Your task to perform on an android device: Go to accessibility settings Image 0: 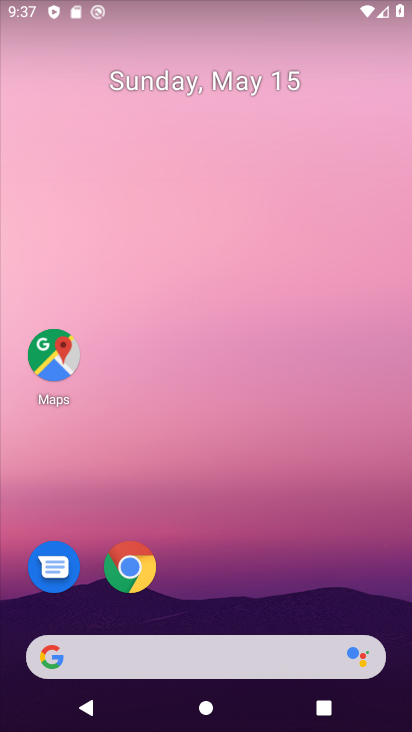
Step 0: drag from (266, 579) to (287, 100)
Your task to perform on an android device: Go to accessibility settings Image 1: 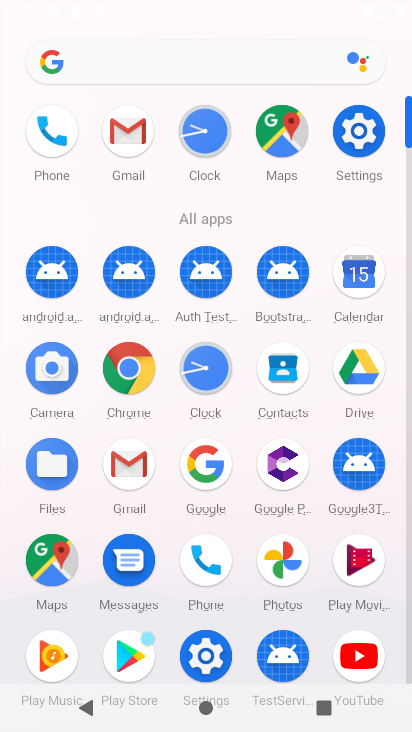
Step 1: click (355, 128)
Your task to perform on an android device: Go to accessibility settings Image 2: 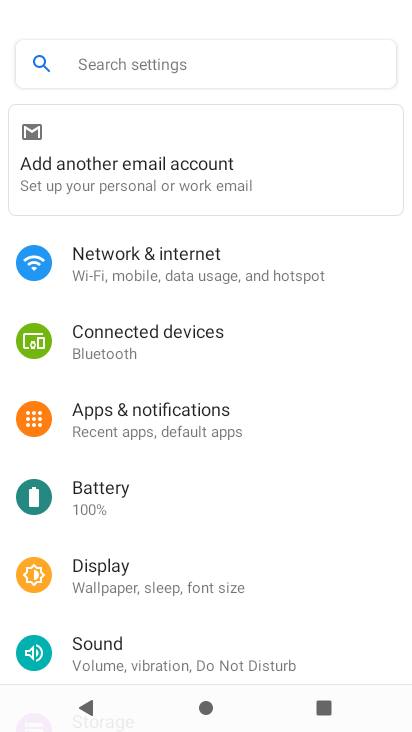
Step 2: drag from (209, 582) to (201, 143)
Your task to perform on an android device: Go to accessibility settings Image 3: 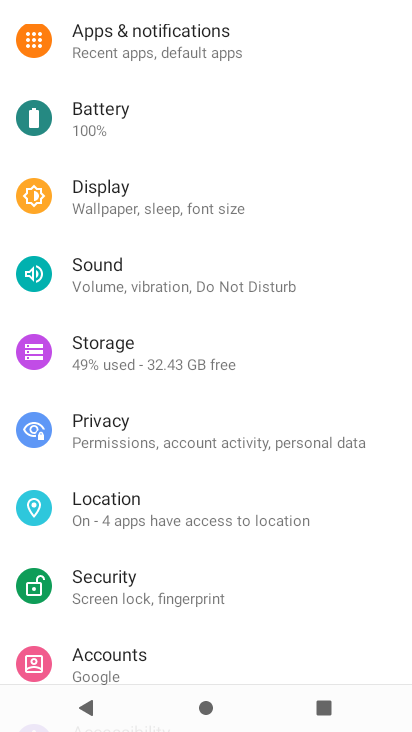
Step 3: drag from (136, 528) to (143, 176)
Your task to perform on an android device: Go to accessibility settings Image 4: 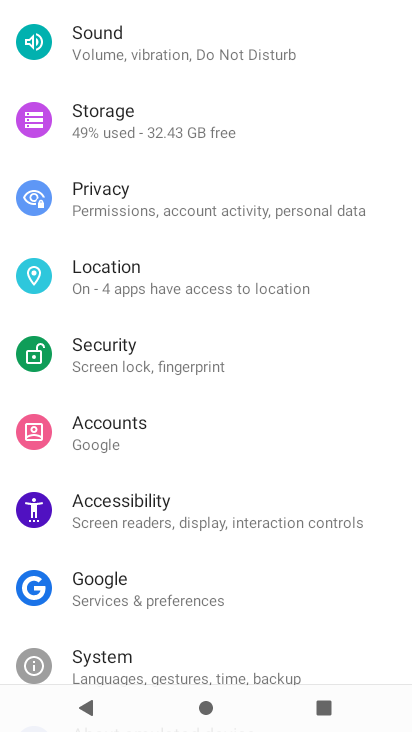
Step 4: drag from (223, 549) to (240, 338)
Your task to perform on an android device: Go to accessibility settings Image 5: 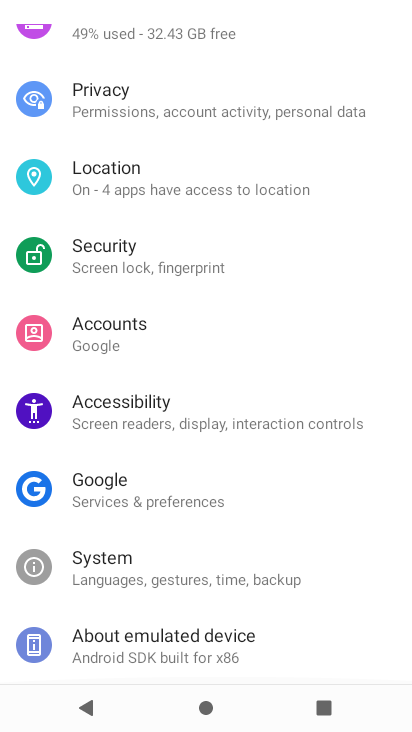
Step 5: click (145, 402)
Your task to perform on an android device: Go to accessibility settings Image 6: 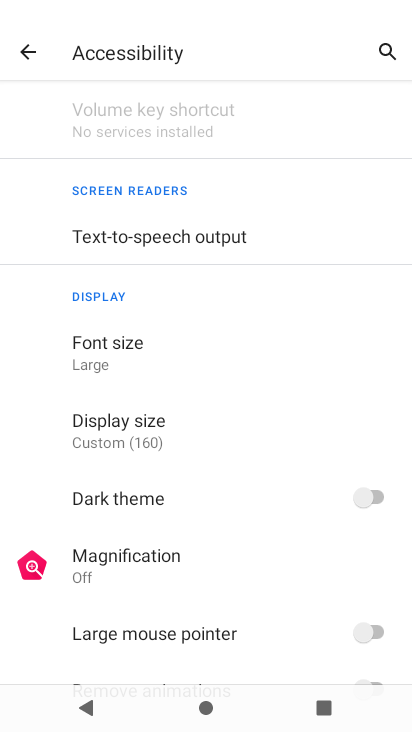
Step 6: task complete